Your task to perform on an android device: Open Google Chrome and click the shortcut for Amazon.com Image 0: 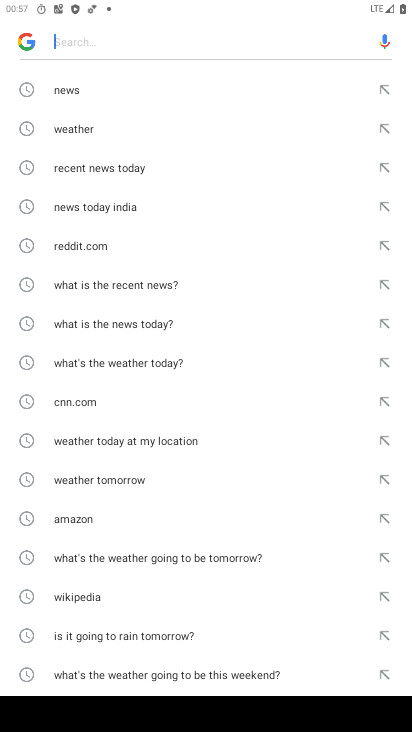
Step 0: press home button
Your task to perform on an android device: Open Google Chrome and click the shortcut for Amazon.com Image 1: 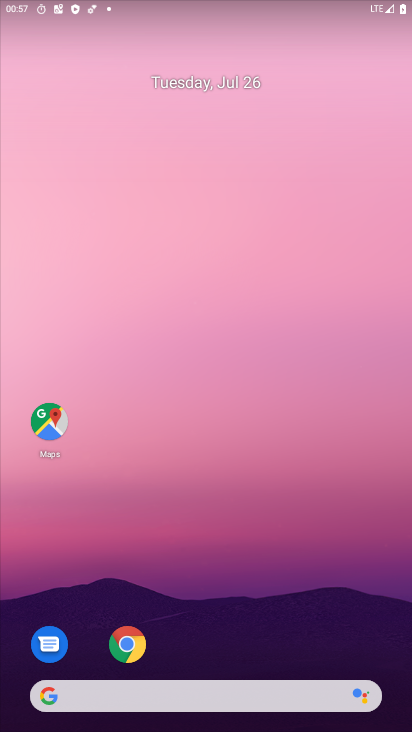
Step 1: click (129, 638)
Your task to perform on an android device: Open Google Chrome and click the shortcut for Amazon.com Image 2: 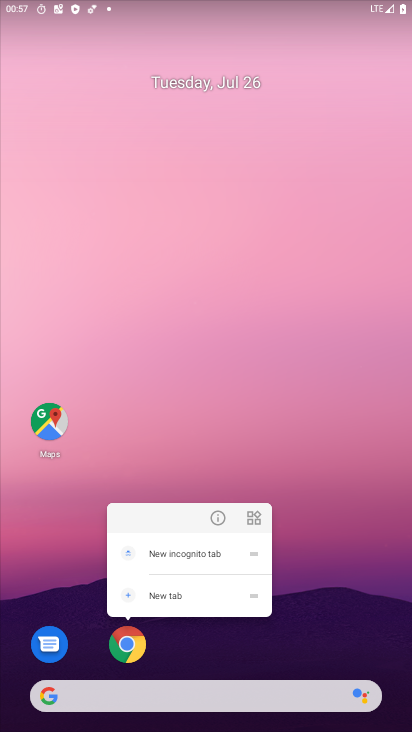
Step 2: click (131, 649)
Your task to perform on an android device: Open Google Chrome and click the shortcut for Amazon.com Image 3: 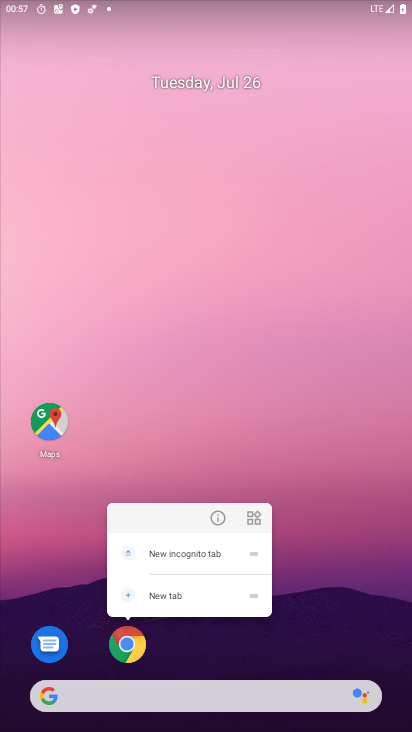
Step 3: click (131, 649)
Your task to perform on an android device: Open Google Chrome and click the shortcut for Amazon.com Image 4: 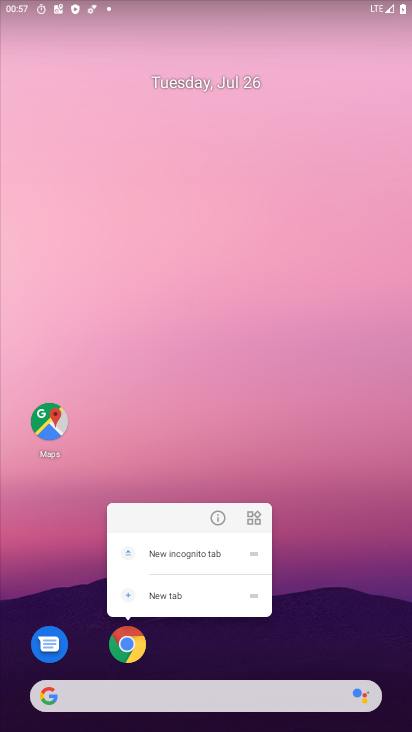
Step 4: click (131, 649)
Your task to perform on an android device: Open Google Chrome and click the shortcut for Amazon.com Image 5: 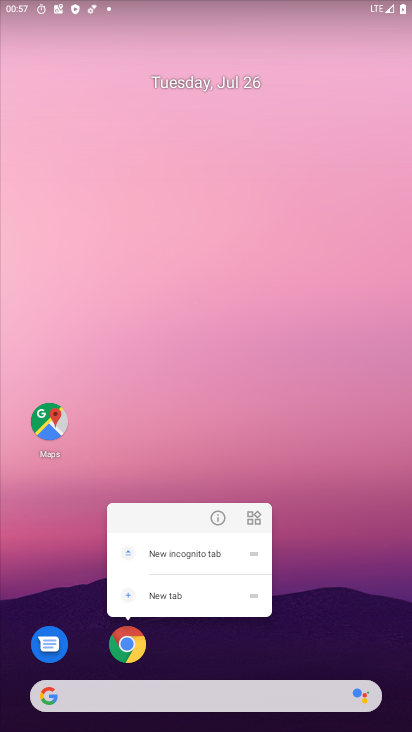
Step 5: click (131, 649)
Your task to perform on an android device: Open Google Chrome and click the shortcut for Amazon.com Image 6: 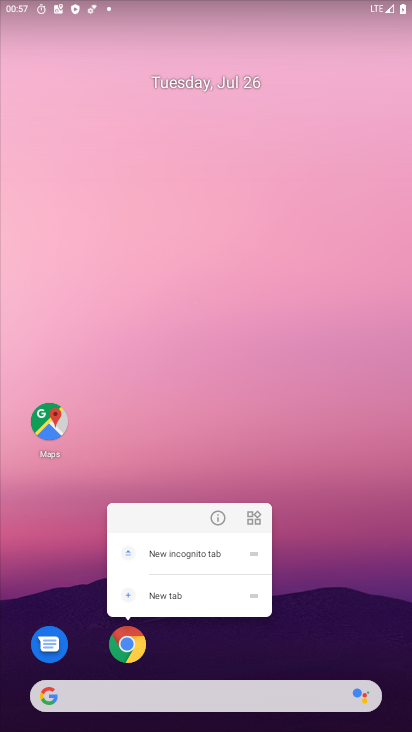
Step 6: click (131, 649)
Your task to perform on an android device: Open Google Chrome and click the shortcut for Amazon.com Image 7: 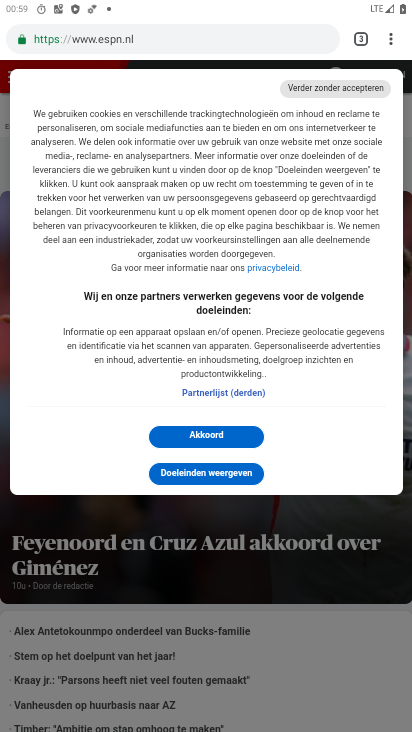
Step 7: click (394, 36)
Your task to perform on an android device: Open Google Chrome and click the shortcut for Amazon.com Image 8: 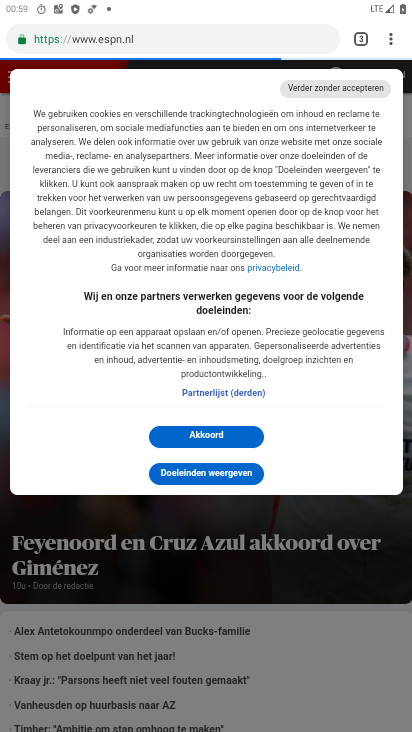
Step 8: click (396, 42)
Your task to perform on an android device: Open Google Chrome and click the shortcut for Amazon.com Image 9: 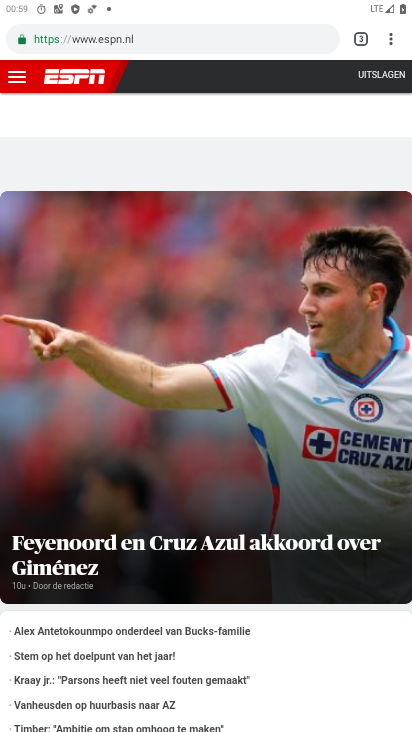
Step 9: click (390, 39)
Your task to perform on an android device: Open Google Chrome and click the shortcut for Amazon.com Image 10: 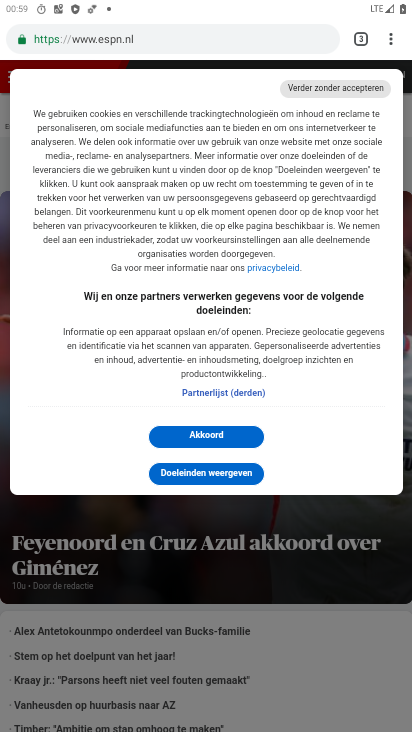
Step 10: click (391, 41)
Your task to perform on an android device: Open Google Chrome and click the shortcut for Amazon.com Image 11: 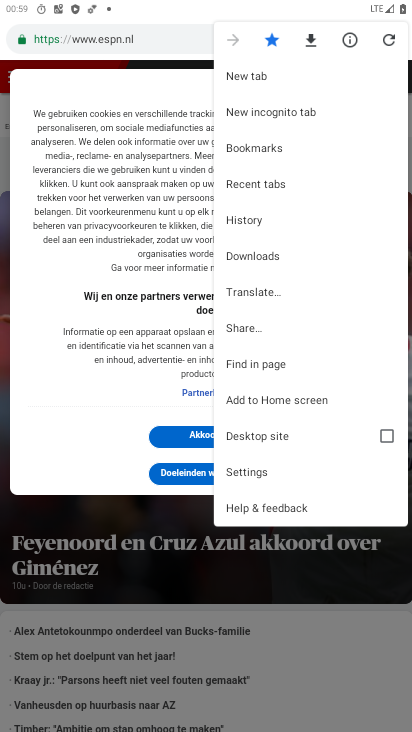
Step 11: click (259, 81)
Your task to perform on an android device: Open Google Chrome and click the shortcut for Amazon.com Image 12: 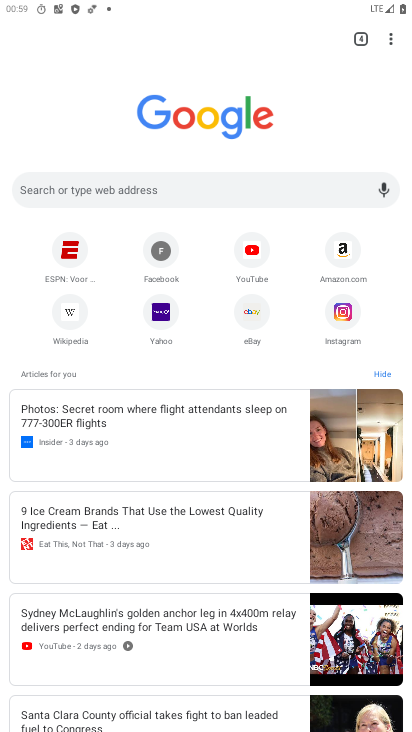
Step 12: click (347, 258)
Your task to perform on an android device: Open Google Chrome and click the shortcut for Amazon.com Image 13: 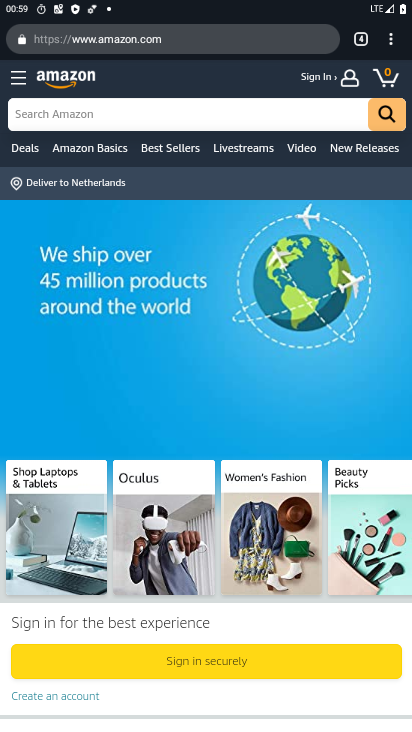
Step 13: task complete